Your task to perform on an android device: Go to calendar. Show me events next week Image 0: 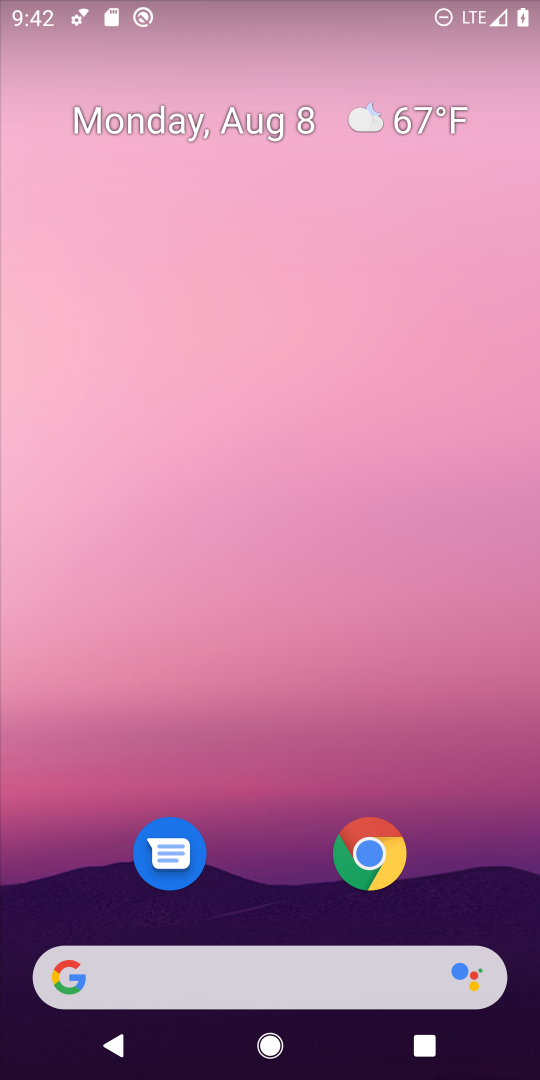
Step 0: drag from (271, 903) to (286, 486)
Your task to perform on an android device: Go to calendar. Show me events next week Image 1: 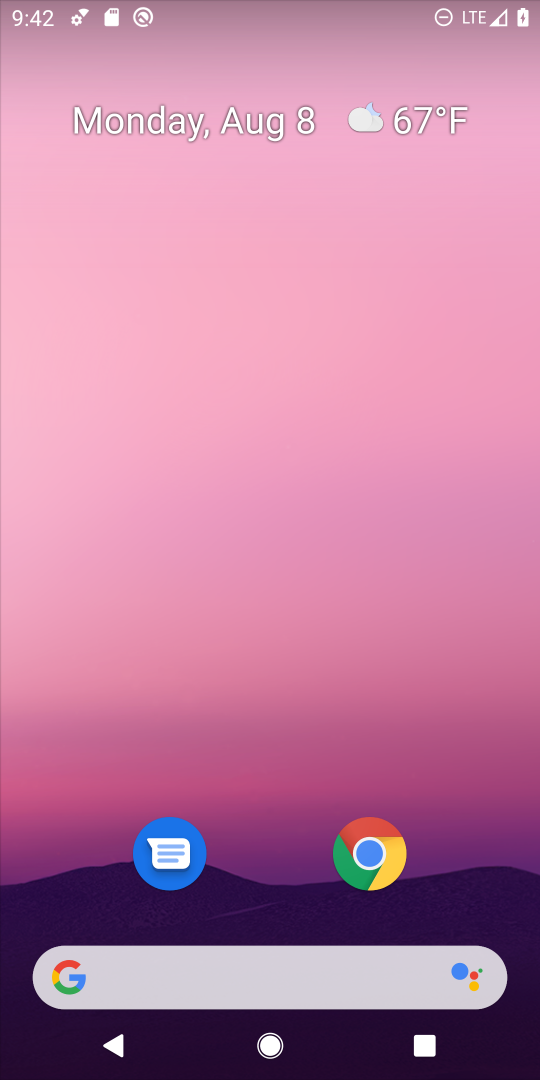
Step 1: drag from (252, 926) to (219, 25)
Your task to perform on an android device: Go to calendar. Show me events next week Image 2: 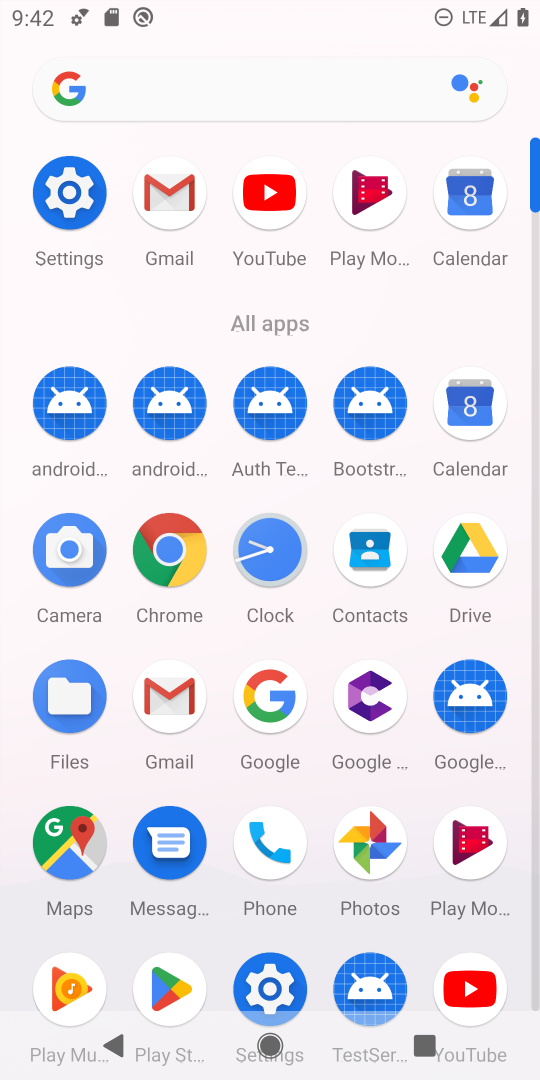
Step 2: click (473, 409)
Your task to perform on an android device: Go to calendar. Show me events next week Image 3: 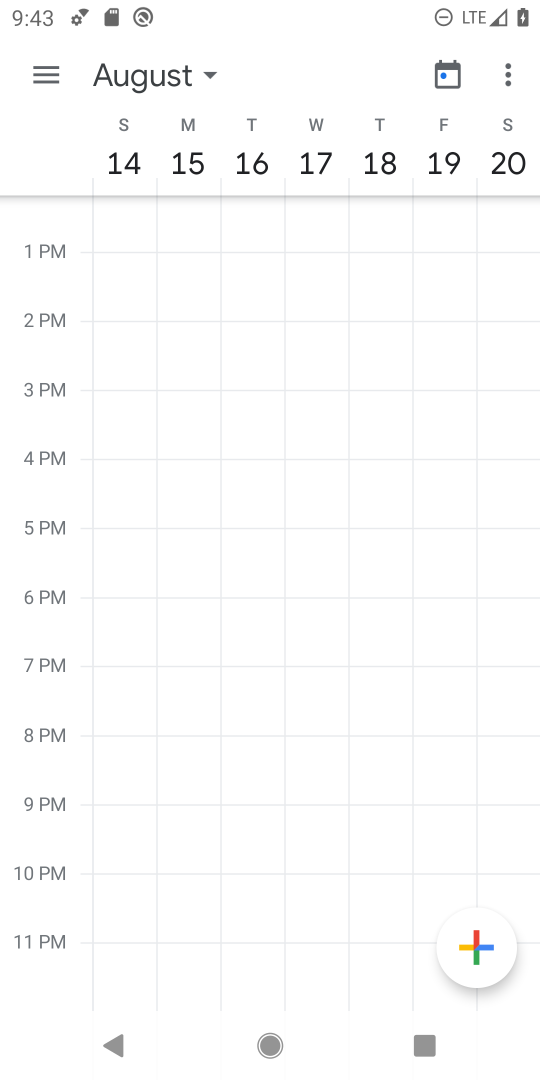
Step 3: task complete